Your task to perform on an android device: change your default location settings in chrome Image 0: 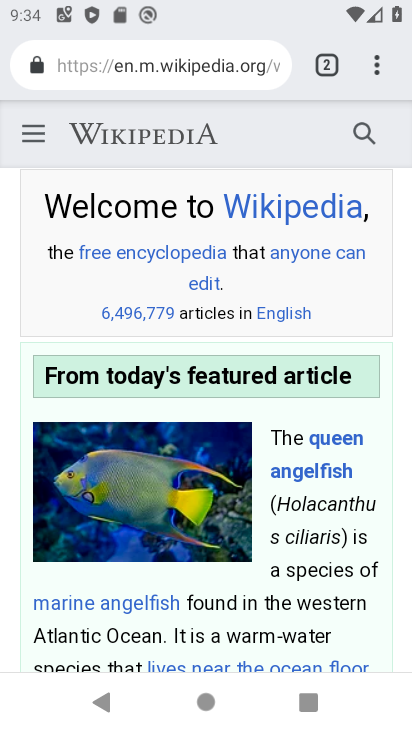
Step 0: press home button
Your task to perform on an android device: change your default location settings in chrome Image 1: 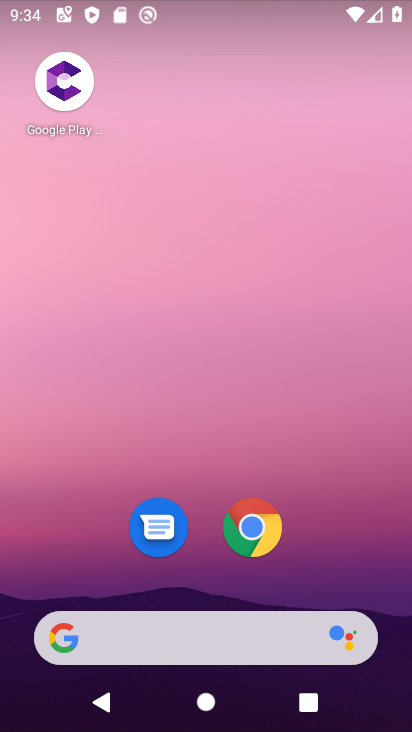
Step 1: click (251, 524)
Your task to perform on an android device: change your default location settings in chrome Image 2: 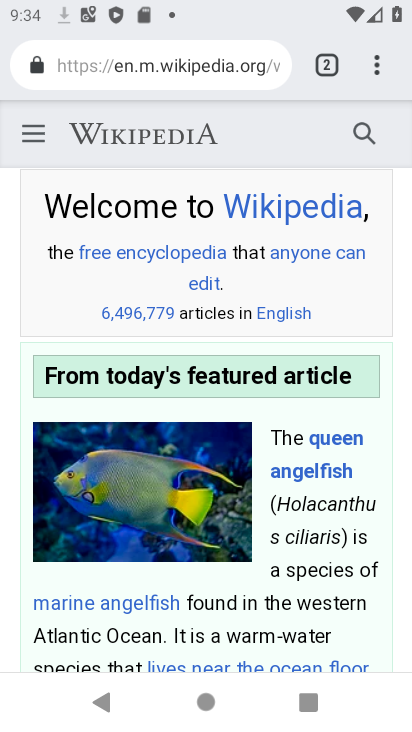
Step 2: click (375, 70)
Your task to perform on an android device: change your default location settings in chrome Image 3: 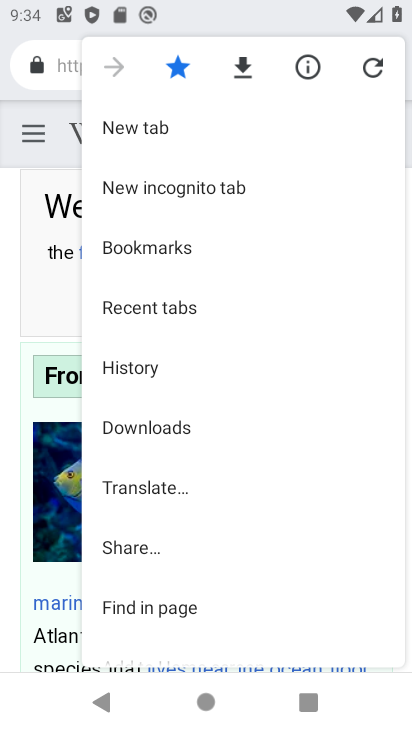
Step 3: drag from (168, 622) to (222, 234)
Your task to perform on an android device: change your default location settings in chrome Image 4: 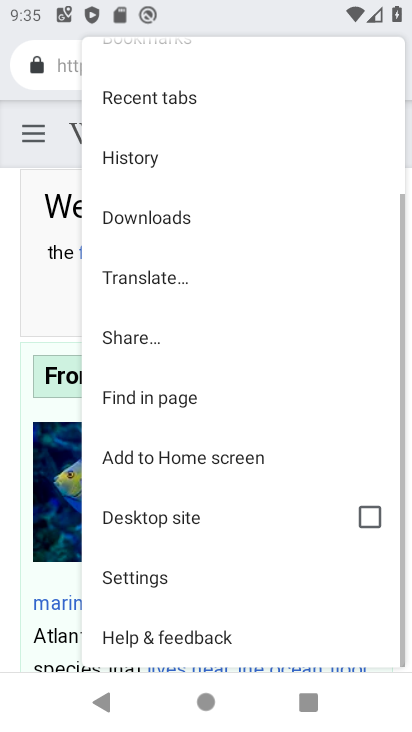
Step 4: click (151, 574)
Your task to perform on an android device: change your default location settings in chrome Image 5: 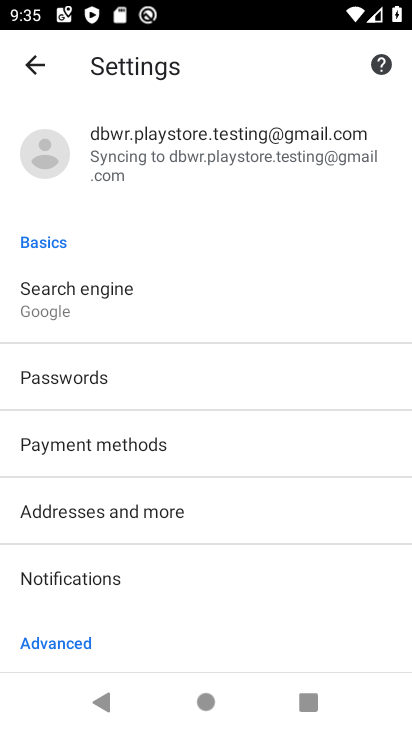
Step 5: drag from (143, 617) to (155, 235)
Your task to perform on an android device: change your default location settings in chrome Image 6: 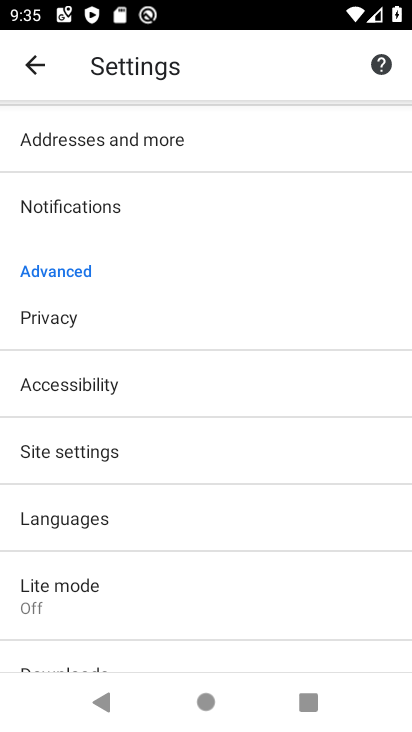
Step 6: drag from (152, 629) to (190, 328)
Your task to perform on an android device: change your default location settings in chrome Image 7: 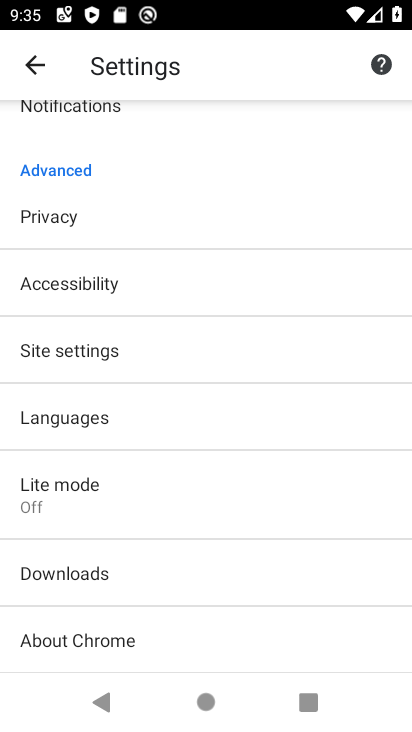
Step 7: drag from (112, 623) to (126, 426)
Your task to perform on an android device: change your default location settings in chrome Image 8: 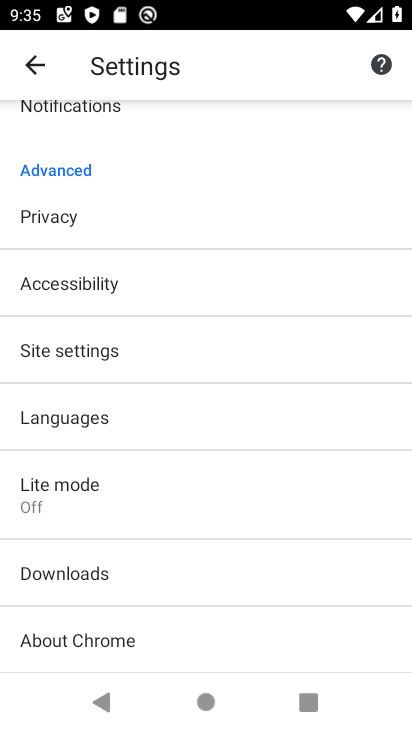
Step 8: drag from (165, 226) to (187, 332)
Your task to perform on an android device: change your default location settings in chrome Image 9: 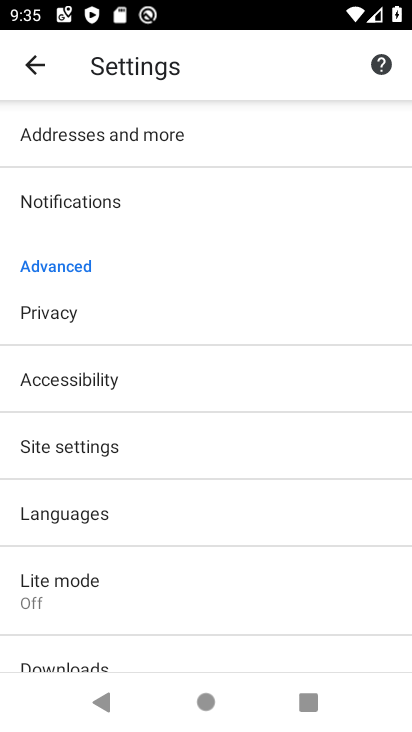
Step 9: click (100, 446)
Your task to perform on an android device: change your default location settings in chrome Image 10: 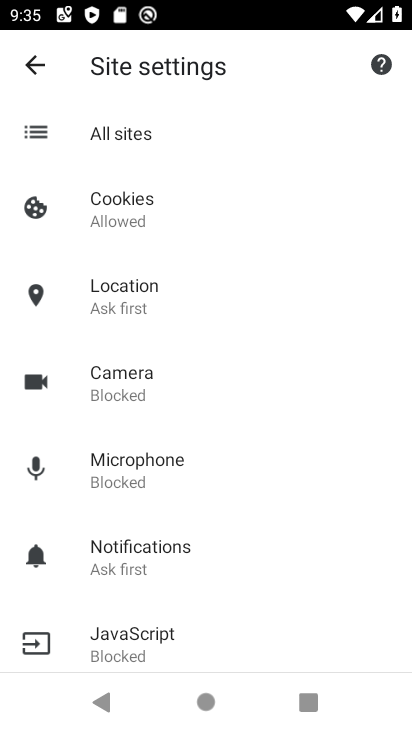
Step 10: click (120, 283)
Your task to perform on an android device: change your default location settings in chrome Image 11: 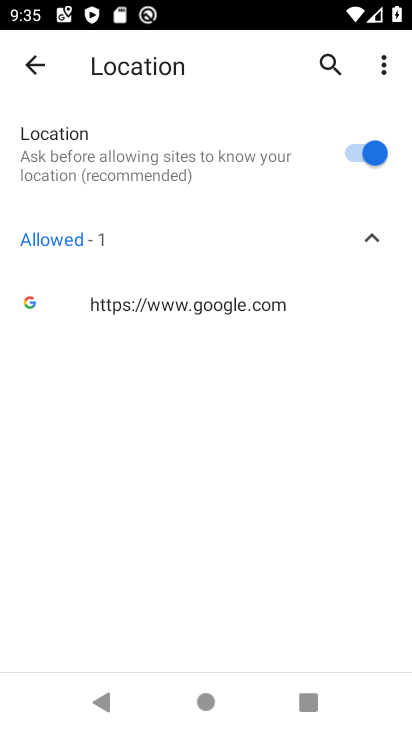
Step 11: click (353, 152)
Your task to perform on an android device: change your default location settings in chrome Image 12: 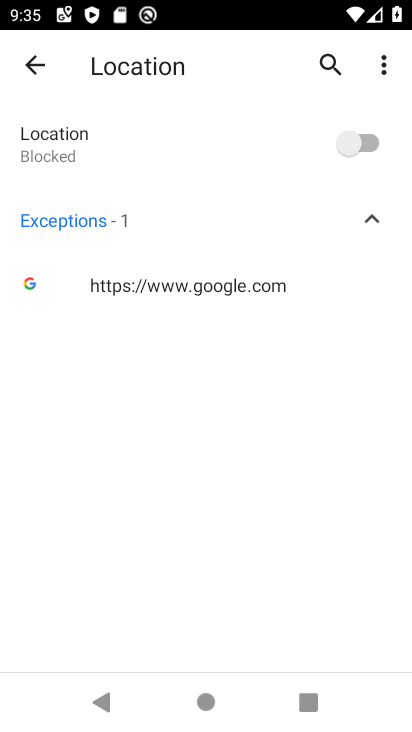
Step 12: task complete